Your task to perform on an android device: turn off notifications in google photos Image 0: 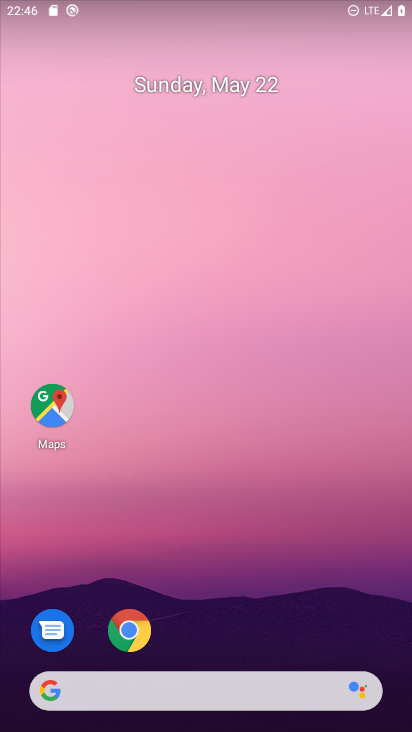
Step 0: press home button
Your task to perform on an android device: turn off notifications in google photos Image 1: 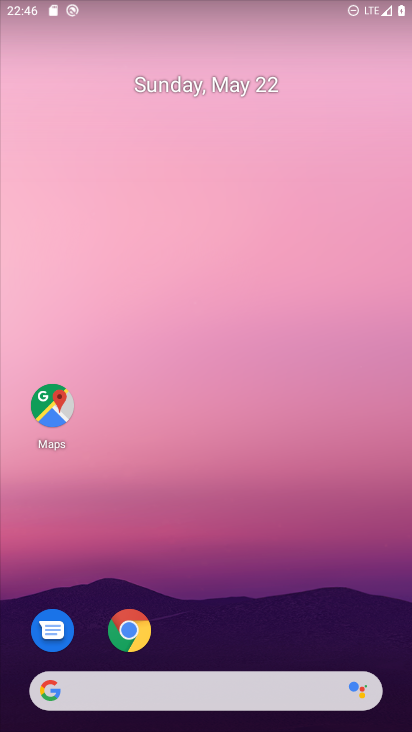
Step 1: drag from (136, 696) to (279, 157)
Your task to perform on an android device: turn off notifications in google photos Image 2: 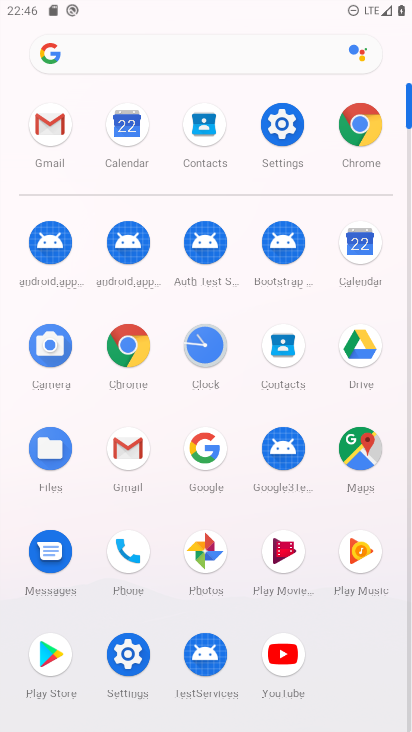
Step 2: click (208, 562)
Your task to perform on an android device: turn off notifications in google photos Image 3: 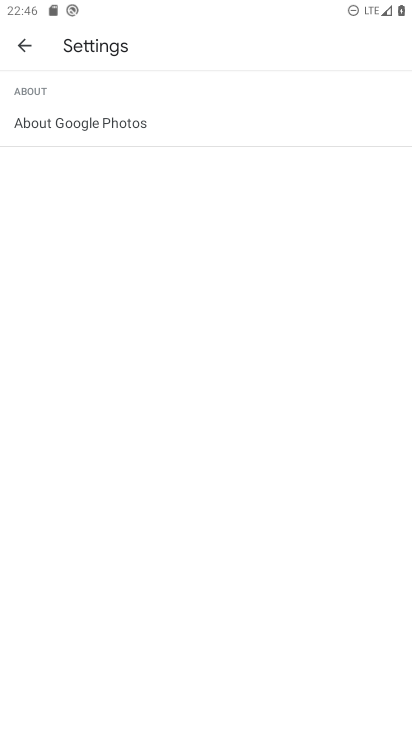
Step 3: click (30, 43)
Your task to perform on an android device: turn off notifications in google photos Image 4: 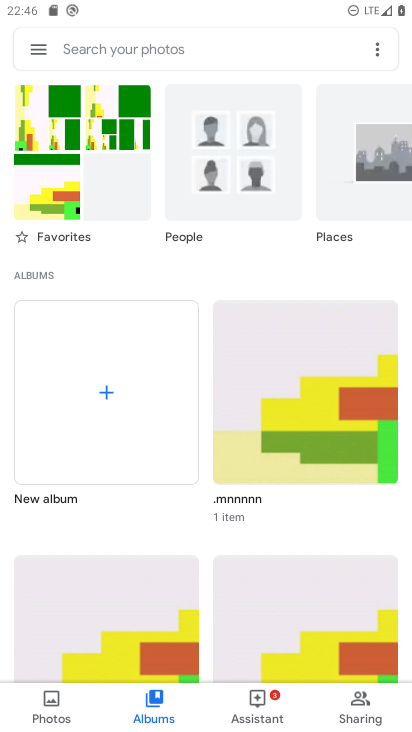
Step 4: click (43, 48)
Your task to perform on an android device: turn off notifications in google photos Image 5: 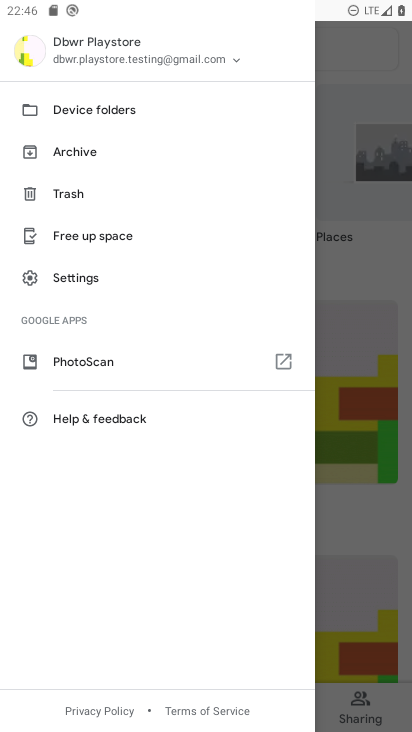
Step 5: click (89, 276)
Your task to perform on an android device: turn off notifications in google photos Image 6: 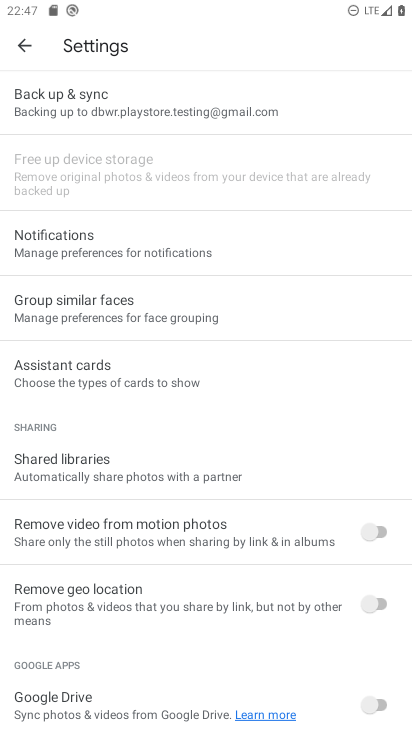
Step 6: click (119, 245)
Your task to perform on an android device: turn off notifications in google photos Image 7: 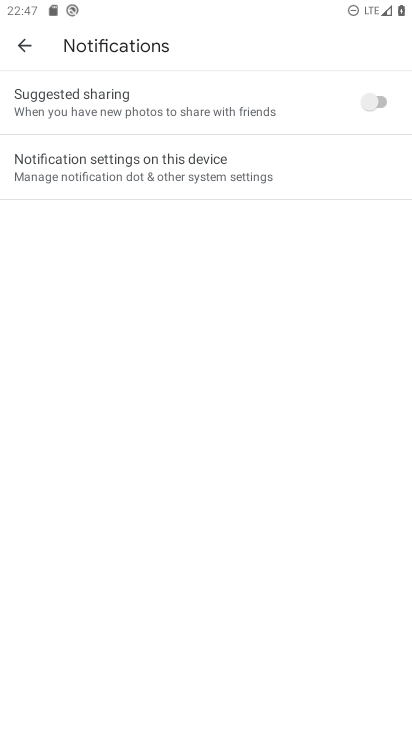
Step 7: click (145, 168)
Your task to perform on an android device: turn off notifications in google photos Image 8: 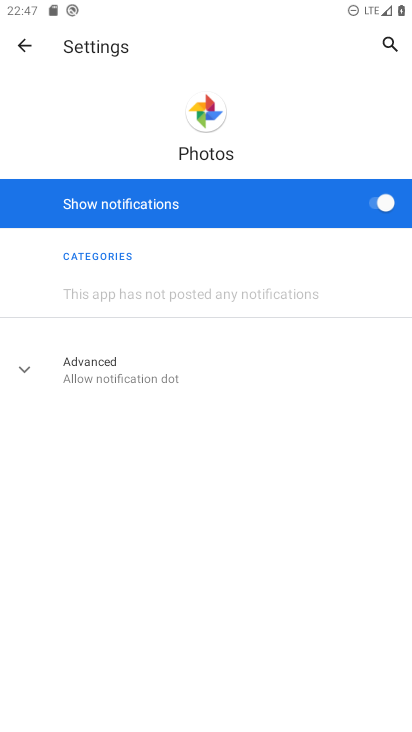
Step 8: click (377, 203)
Your task to perform on an android device: turn off notifications in google photos Image 9: 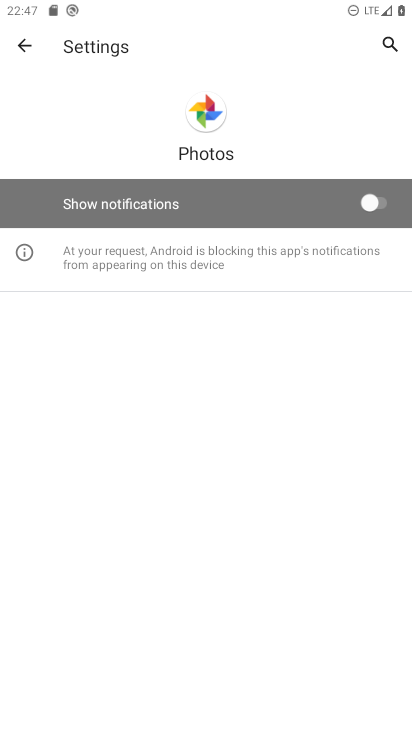
Step 9: task complete